Your task to perform on an android device: install app "eBay: The shopping marketplace" Image 0: 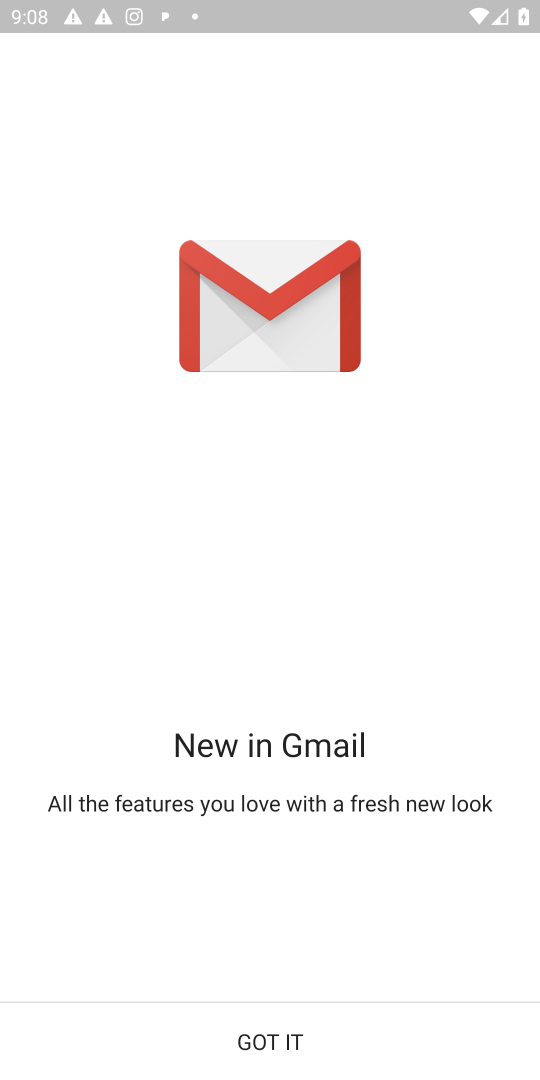
Step 0: press home button
Your task to perform on an android device: install app "eBay: The shopping marketplace" Image 1: 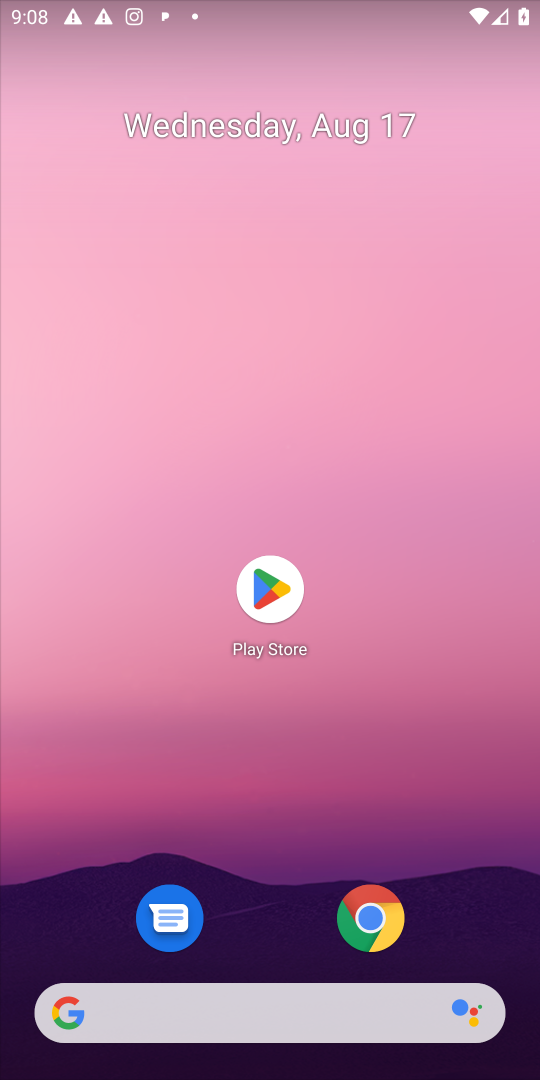
Step 1: click (268, 580)
Your task to perform on an android device: install app "eBay: The shopping marketplace" Image 2: 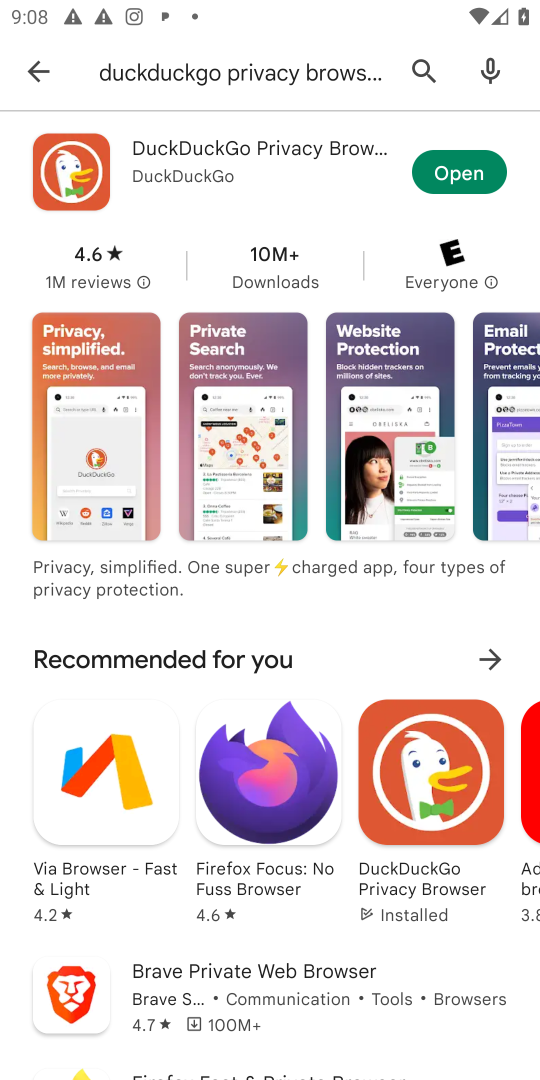
Step 2: click (420, 63)
Your task to perform on an android device: install app "eBay: The shopping marketplace" Image 3: 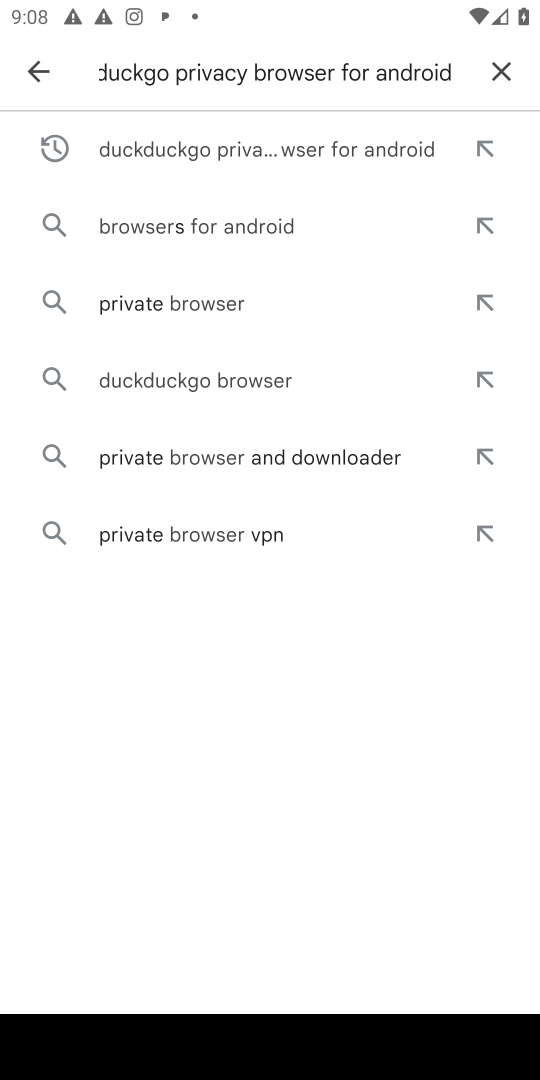
Step 3: click (503, 73)
Your task to perform on an android device: install app "eBay: The shopping marketplace" Image 4: 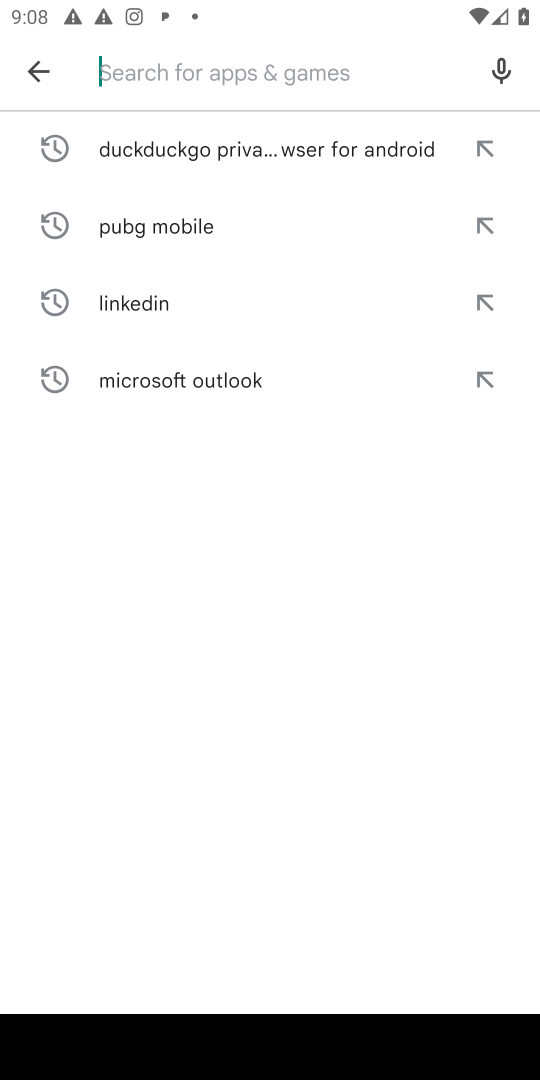
Step 4: type "eBay: The shopping marketplace"
Your task to perform on an android device: install app "eBay: The shopping marketplace" Image 5: 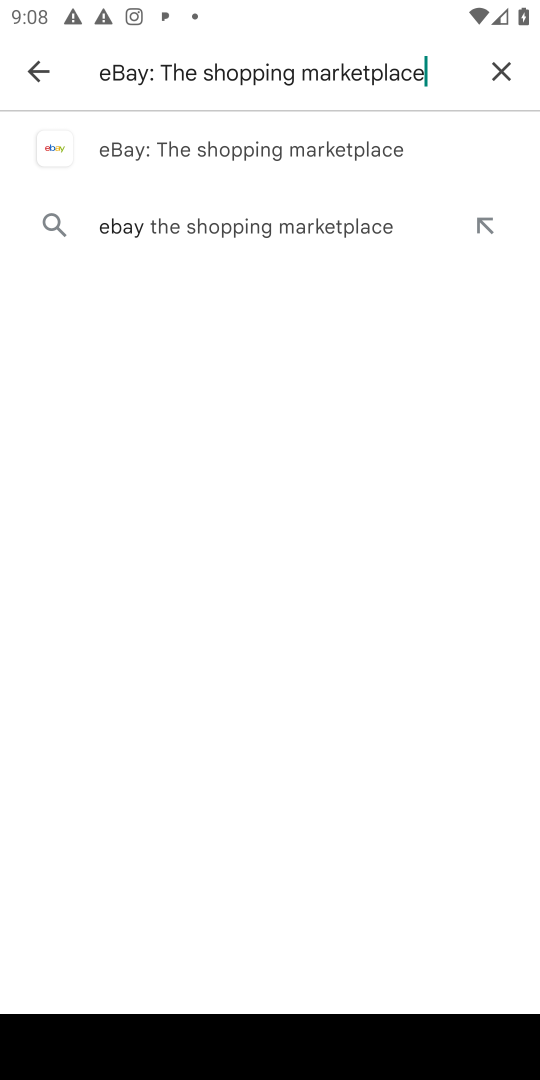
Step 5: click (300, 150)
Your task to perform on an android device: install app "eBay: The shopping marketplace" Image 6: 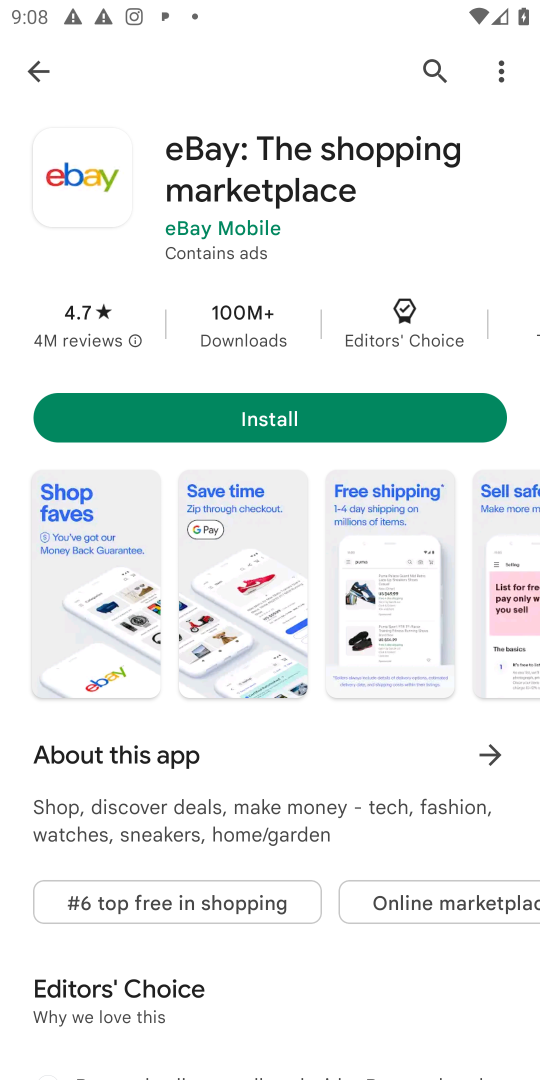
Step 6: click (271, 410)
Your task to perform on an android device: install app "eBay: The shopping marketplace" Image 7: 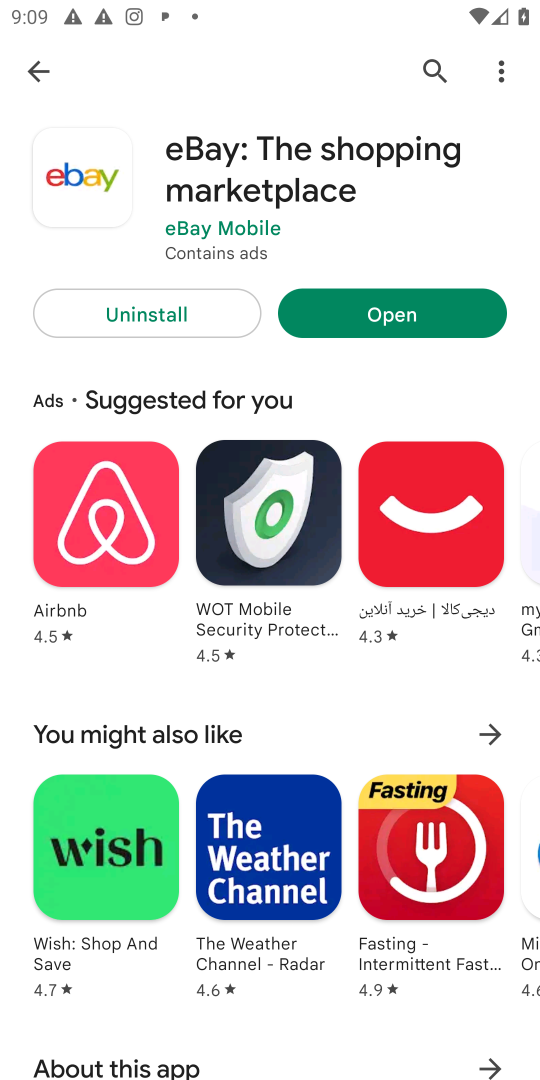
Step 7: task complete